Your task to perform on an android device: see tabs open on other devices in the chrome app Image 0: 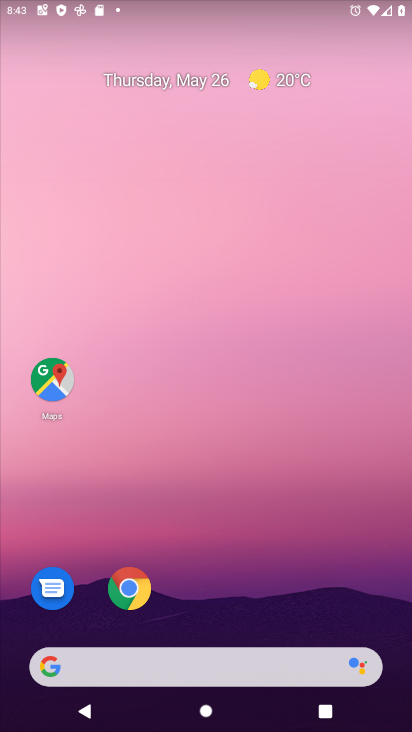
Step 0: drag from (356, 611) to (310, 6)
Your task to perform on an android device: see tabs open on other devices in the chrome app Image 1: 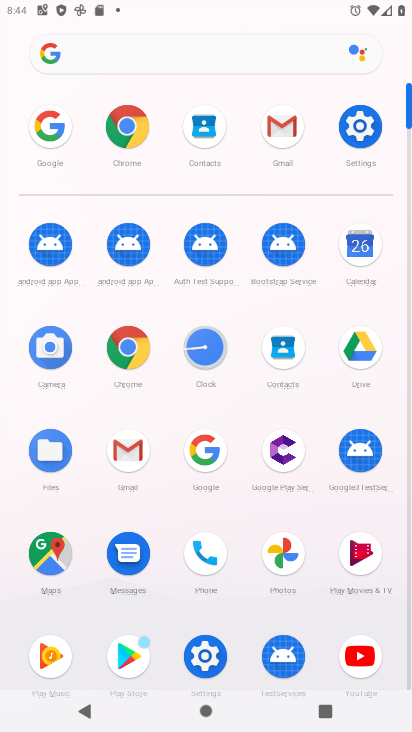
Step 1: click (122, 346)
Your task to perform on an android device: see tabs open on other devices in the chrome app Image 2: 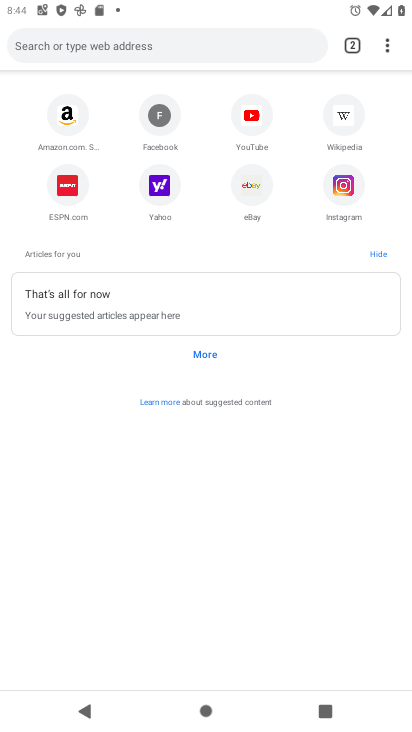
Step 2: task complete